Your task to perform on an android device: Search for pizza restaurants on Maps Image 0: 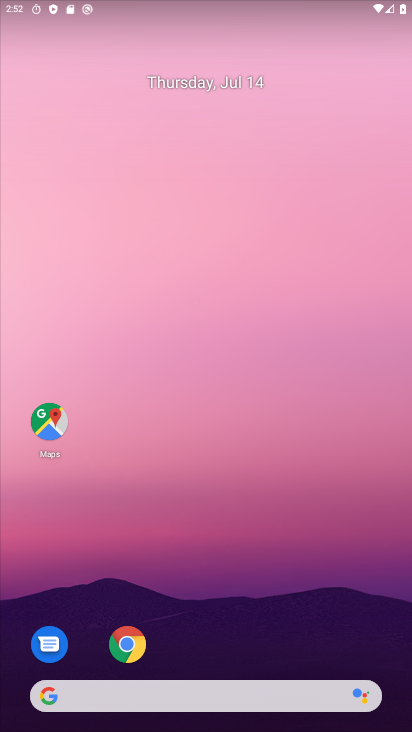
Step 0: click (54, 433)
Your task to perform on an android device: Search for pizza restaurants on Maps Image 1: 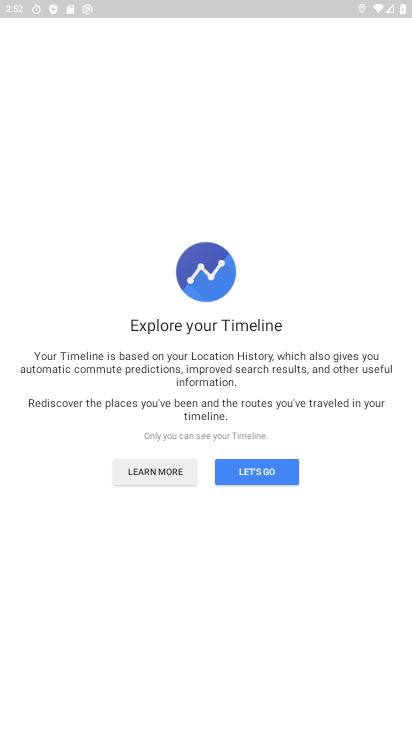
Step 1: click (267, 472)
Your task to perform on an android device: Search for pizza restaurants on Maps Image 2: 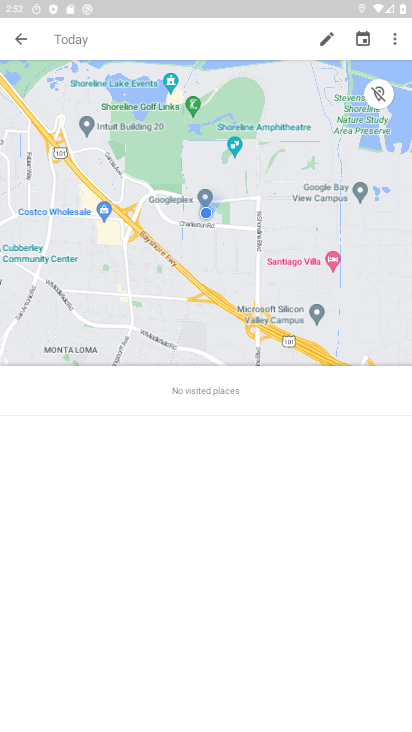
Step 2: click (63, 43)
Your task to perform on an android device: Search for pizza restaurants on Maps Image 3: 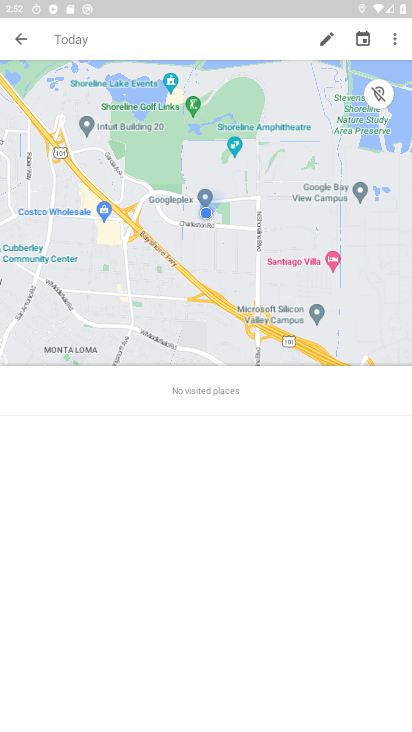
Step 3: click (22, 39)
Your task to perform on an android device: Search for pizza restaurants on Maps Image 4: 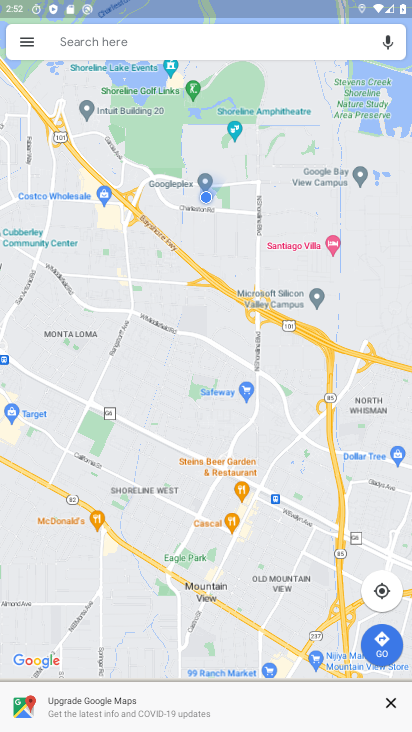
Step 4: click (81, 31)
Your task to perform on an android device: Search for pizza restaurants on Maps Image 5: 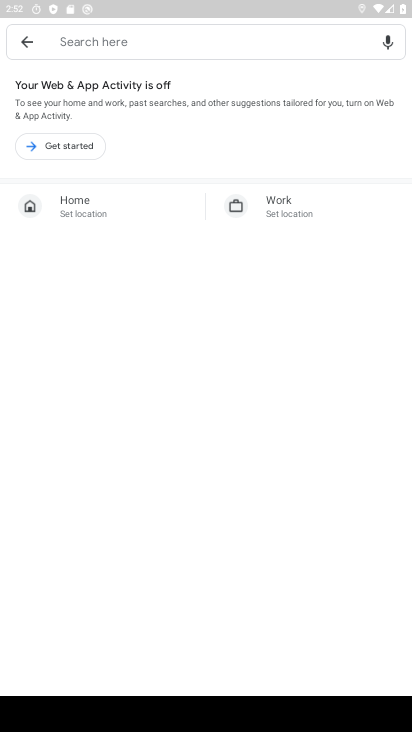
Step 5: type "pizza restaurants"
Your task to perform on an android device: Search for pizza restaurants on Maps Image 6: 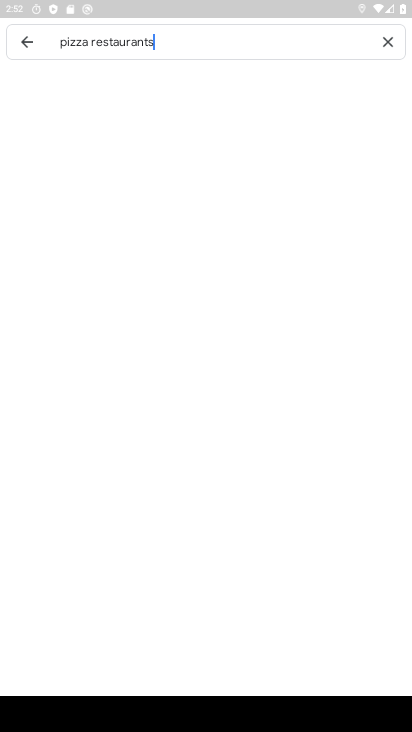
Step 6: type ""
Your task to perform on an android device: Search for pizza restaurants on Maps Image 7: 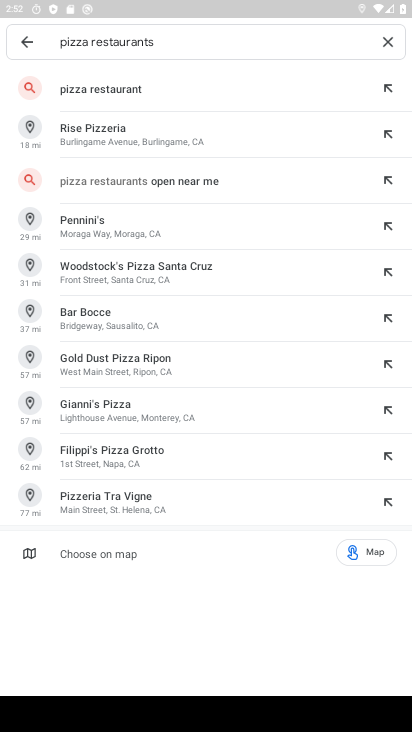
Step 7: click (91, 93)
Your task to perform on an android device: Search for pizza restaurants on Maps Image 8: 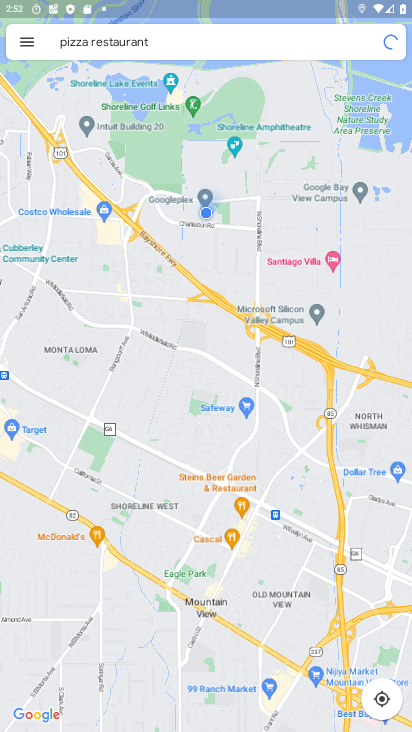
Step 8: task complete